Your task to perform on an android device: turn on translation in the chrome app Image 0: 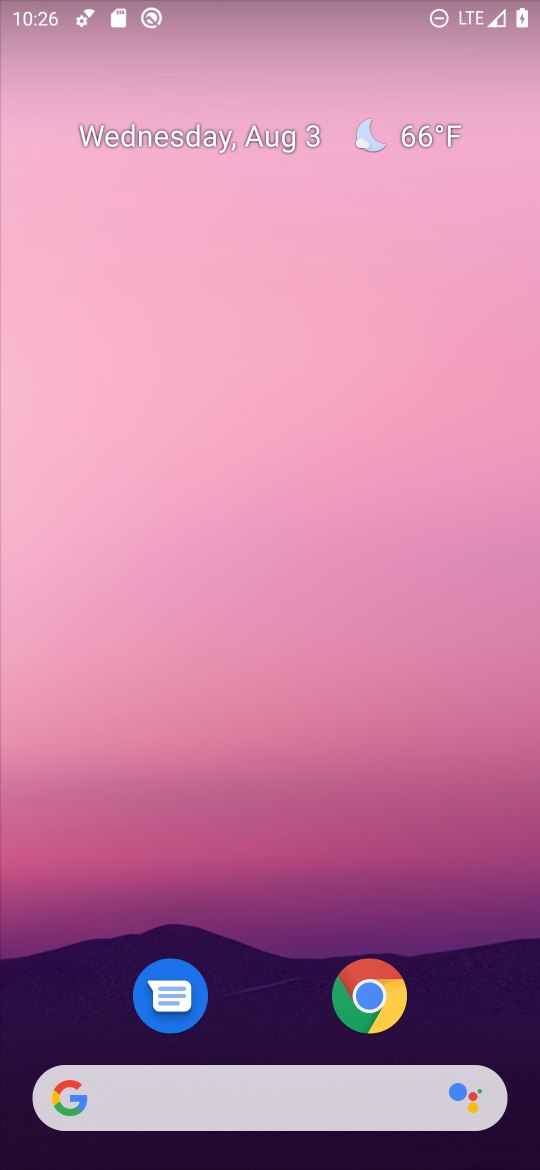
Step 0: click (370, 1004)
Your task to perform on an android device: turn on translation in the chrome app Image 1: 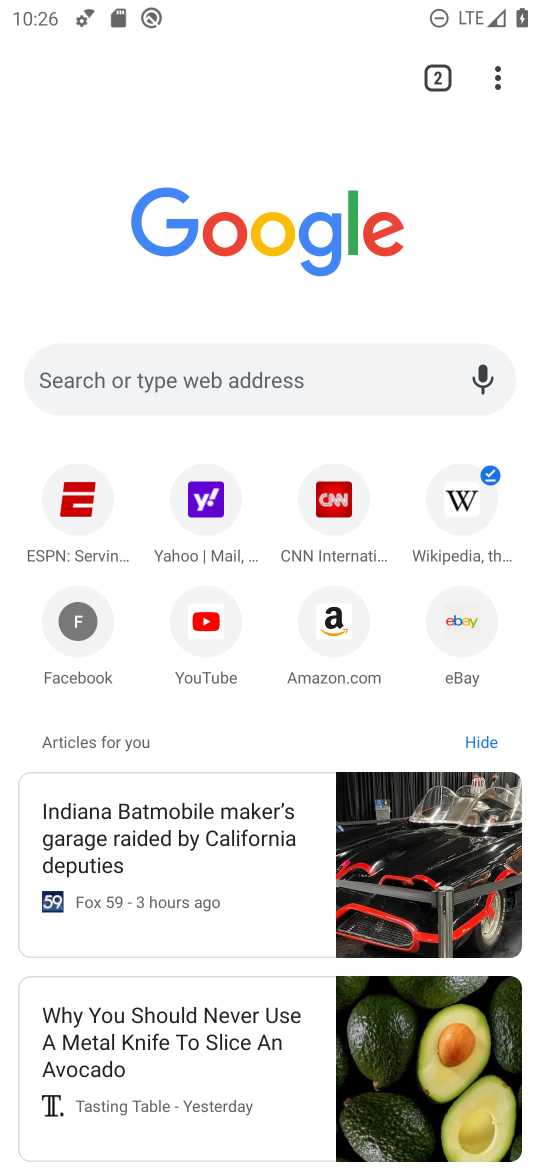
Step 1: click (495, 73)
Your task to perform on an android device: turn on translation in the chrome app Image 2: 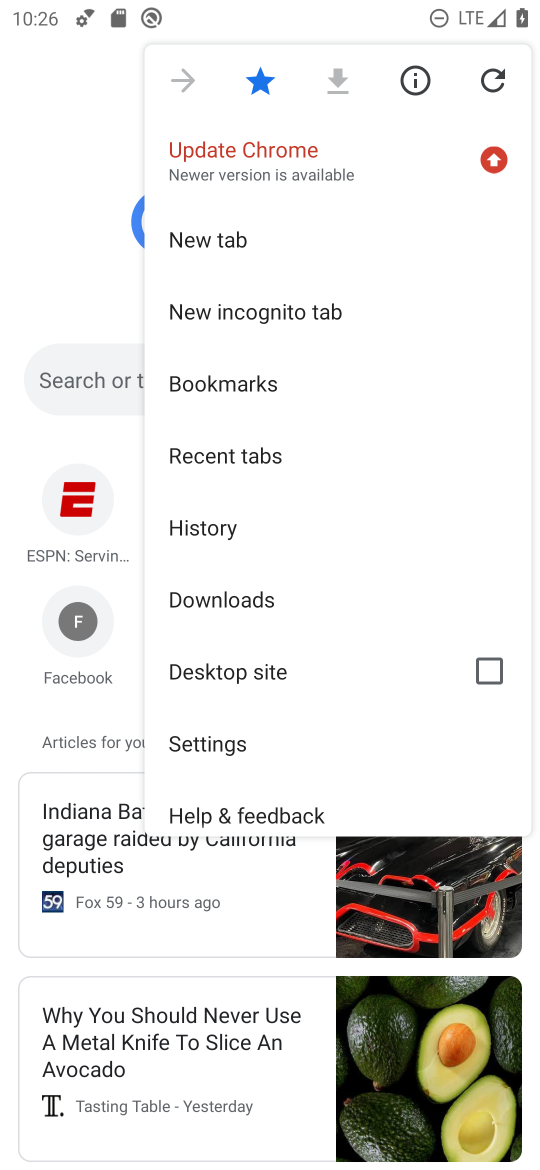
Step 2: click (234, 750)
Your task to perform on an android device: turn on translation in the chrome app Image 3: 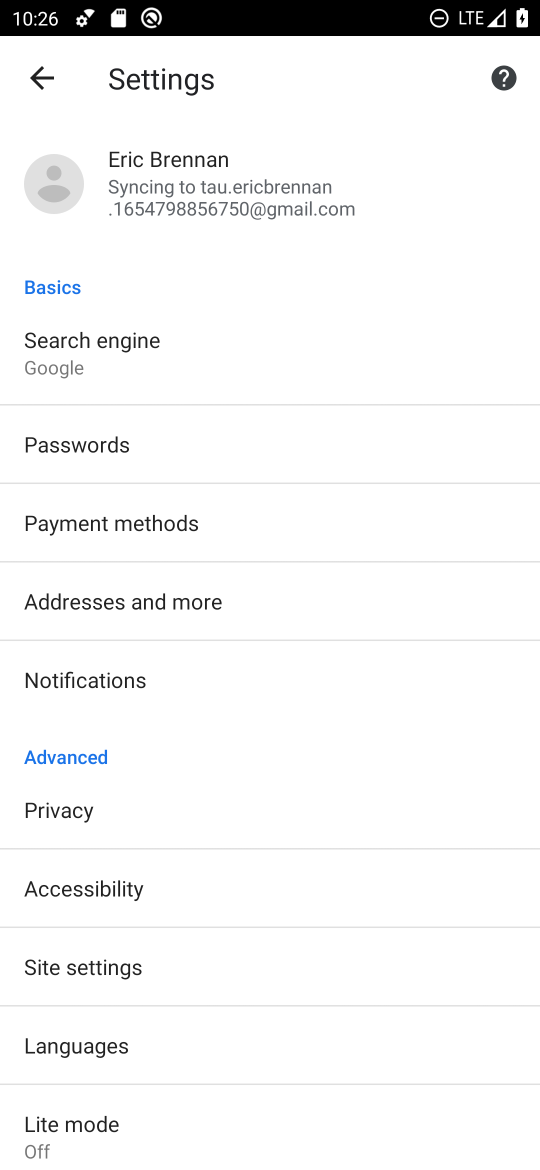
Step 3: click (219, 1044)
Your task to perform on an android device: turn on translation in the chrome app Image 4: 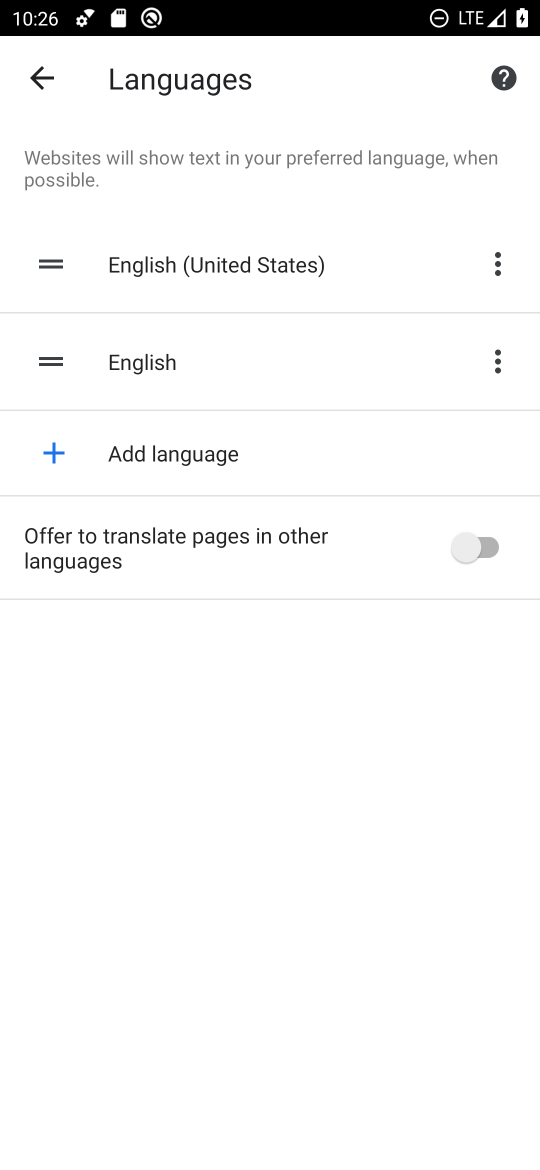
Step 4: click (480, 544)
Your task to perform on an android device: turn on translation in the chrome app Image 5: 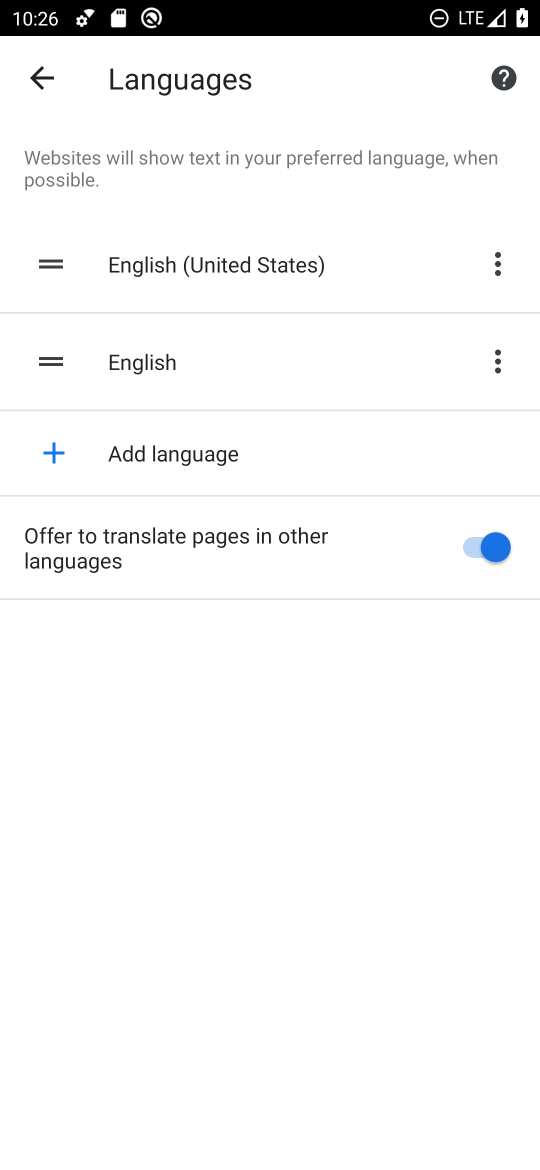
Step 5: task complete